Your task to perform on an android device: toggle priority inbox in the gmail app Image 0: 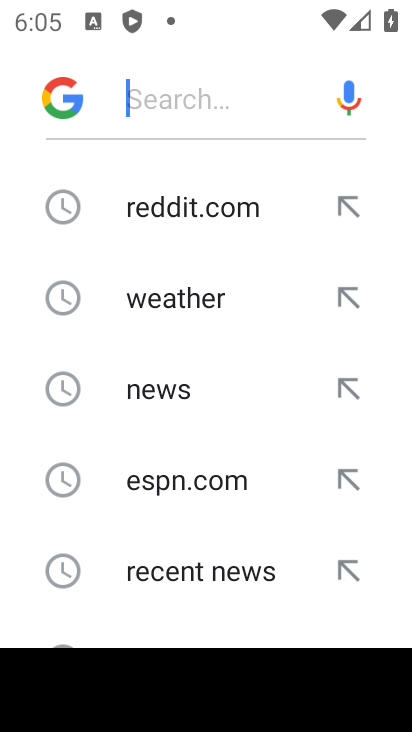
Step 0: press home button
Your task to perform on an android device: toggle priority inbox in the gmail app Image 1: 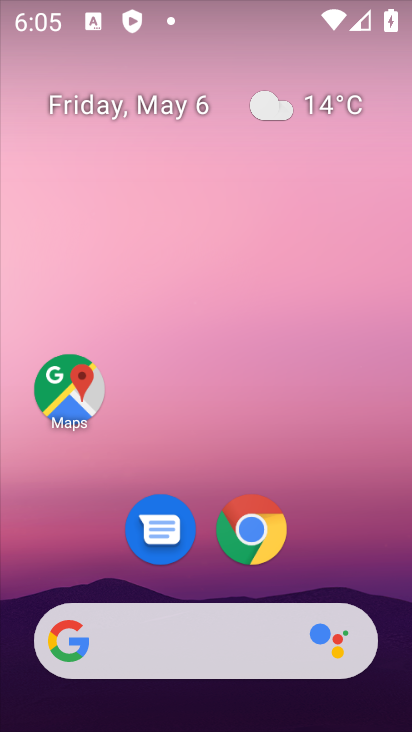
Step 1: drag from (336, 554) to (197, 44)
Your task to perform on an android device: toggle priority inbox in the gmail app Image 2: 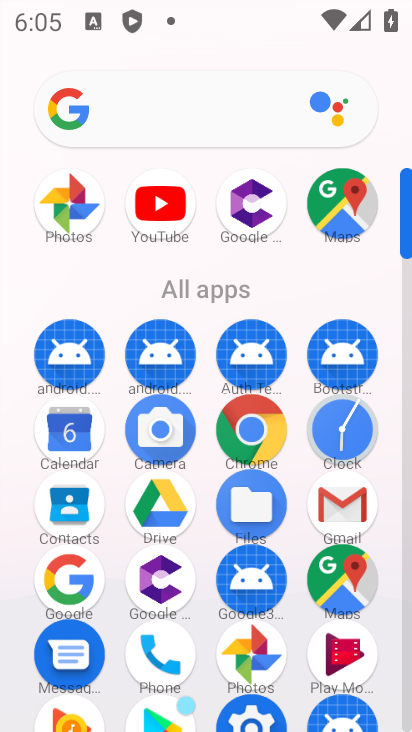
Step 2: click (343, 503)
Your task to perform on an android device: toggle priority inbox in the gmail app Image 3: 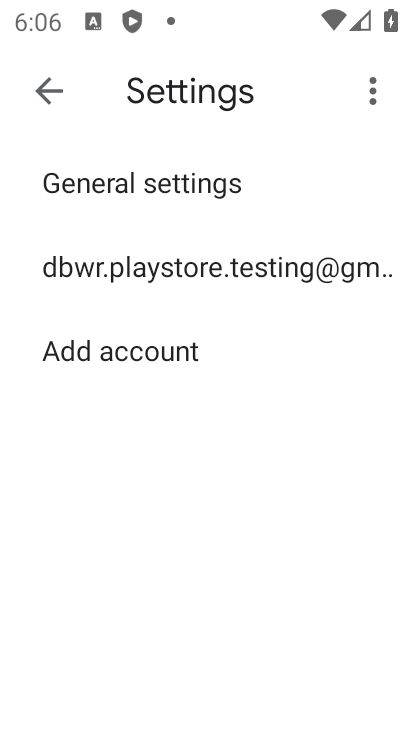
Step 3: click (151, 262)
Your task to perform on an android device: toggle priority inbox in the gmail app Image 4: 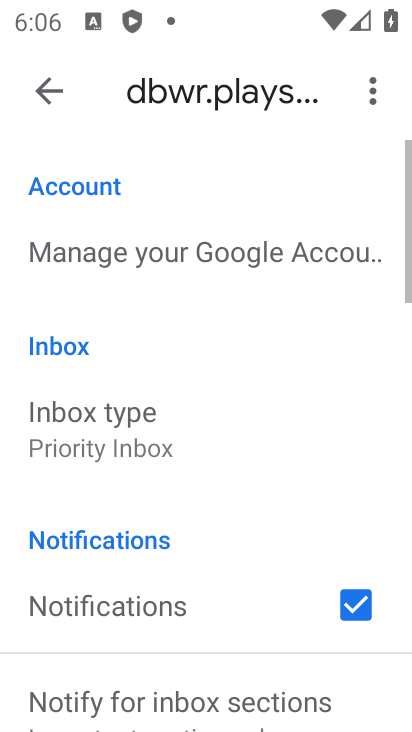
Step 4: click (132, 467)
Your task to perform on an android device: toggle priority inbox in the gmail app Image 5: 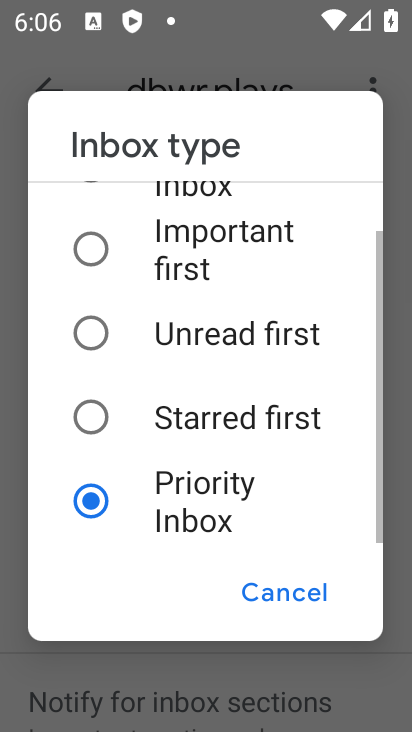
Step 5: click (203, 232)
Your task to perform on an android device: toggle priority inbox in the gmail app Image 6: 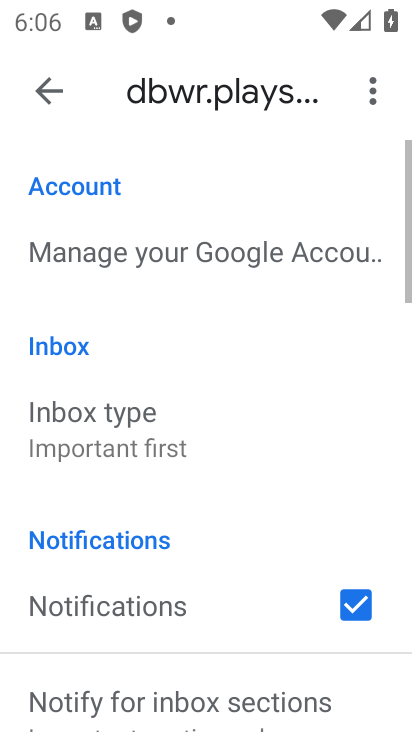
Step 6: task complete